Your task to perform on an android device: What is the news today? Image 0: 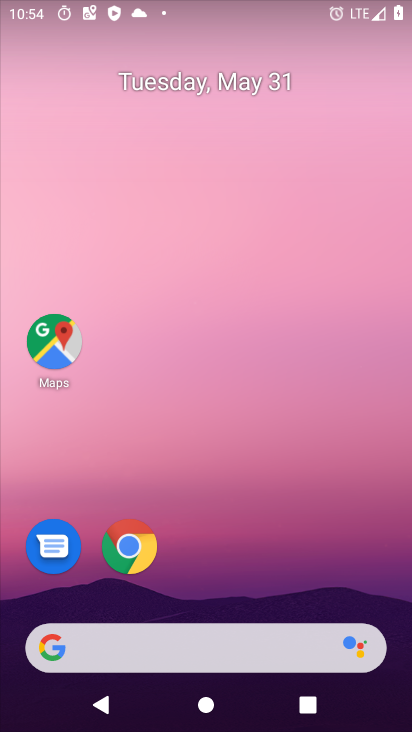
Step 0: click (171, 645)
Your task to perform on an android device: What is the news today? Image 1: 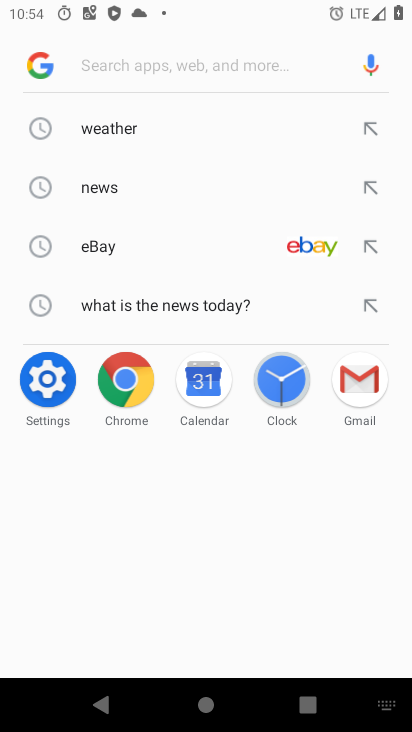
Step 1: click (209, 308)
Your task to perform on an android device: What is the news today? Image 2: 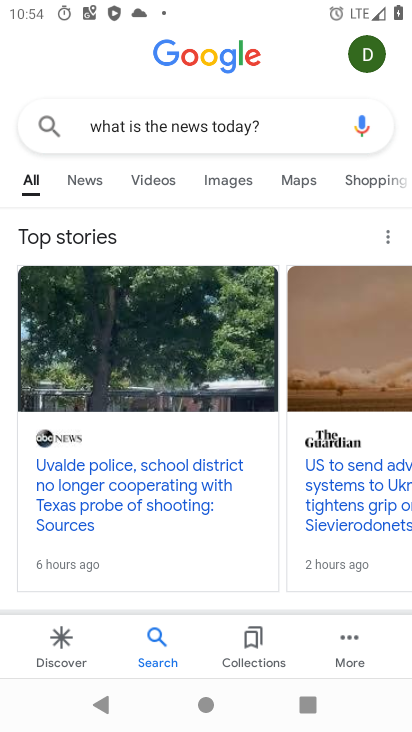
Step 2: task complete